Your task to perform on an android device: open a bookmark in the chrome app Image 0: 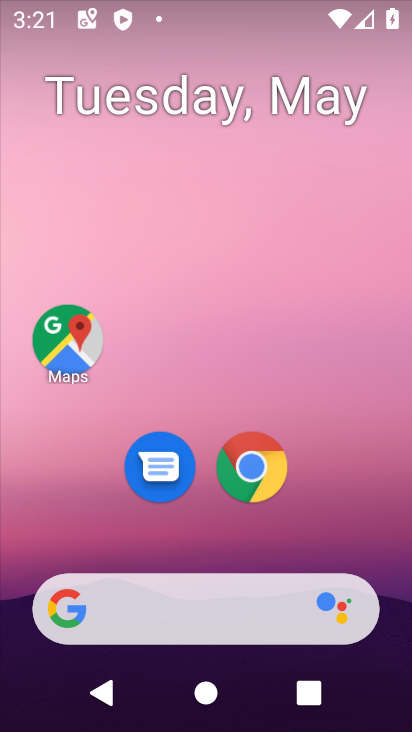
Step 0: click (256, 461)
Your task to perform on an android device: open a bookmark in the chrome app Image 1: 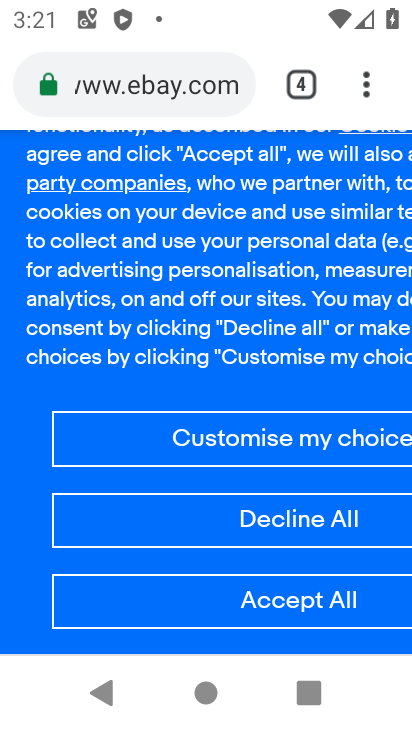
Step 1: click (358, 85)
Your task to perform on an android device: open a bookmark in the chrome app Image 2: 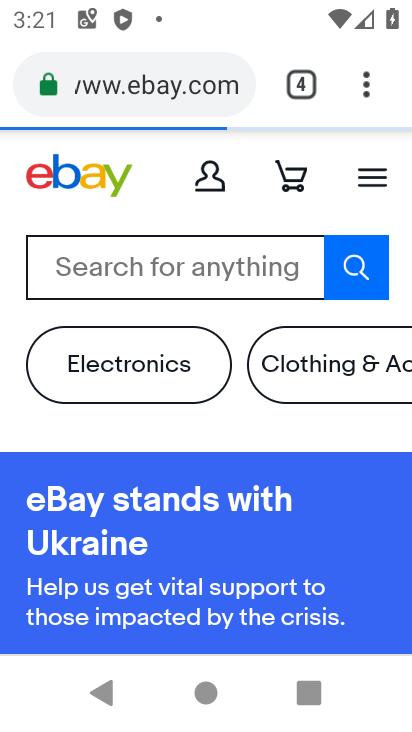
Step 2: task complete